Your task to perform on an android device: Go to ESPN.com Image 0: 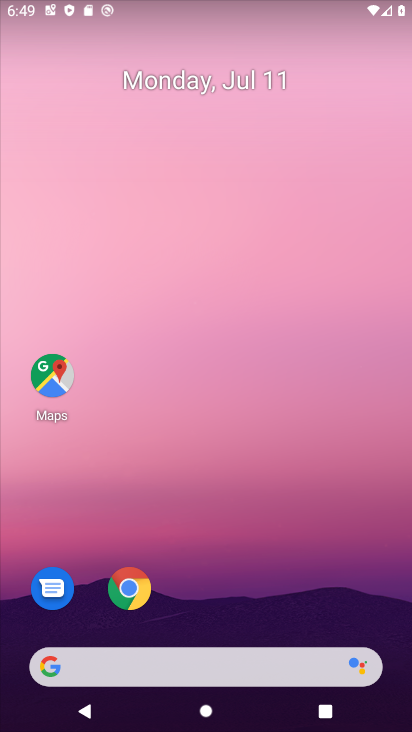
Step 0: drag from (395, 638) to (212, 63)
Your task to perform on an android device: Go to ESPN.com Image 1: 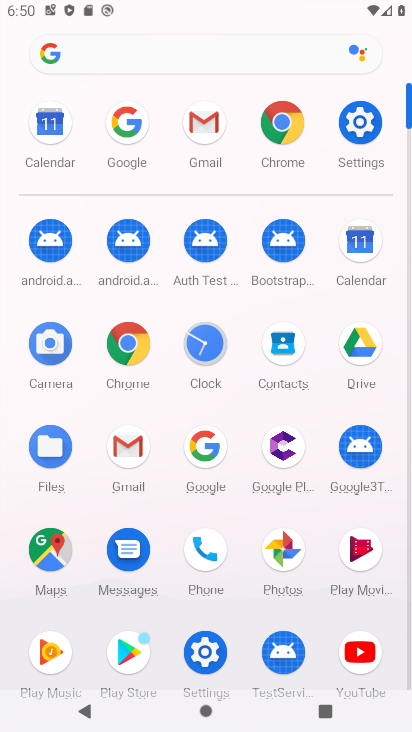
Step 1: click (196, 454)
Your task to perform on an android device: Go to ESPN.com Image 2: 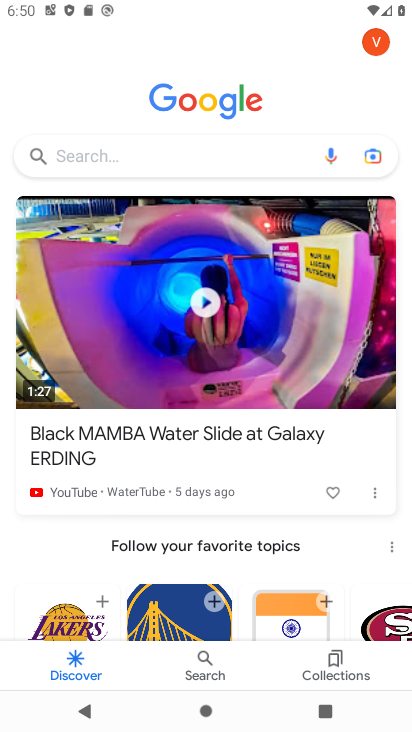
Step 2: click (94, 142)
Your task to perform on an android device: Go to ESPN.com Image 3: 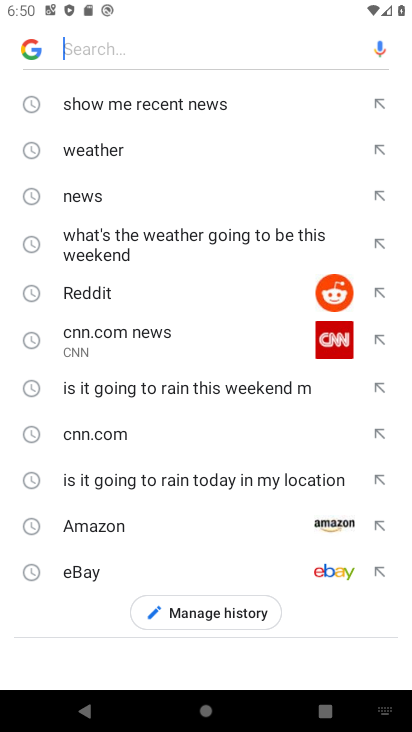
Step 3: type "ESPN.com"
Your task to perform on an android device: Go to ESPN.com Image 4: 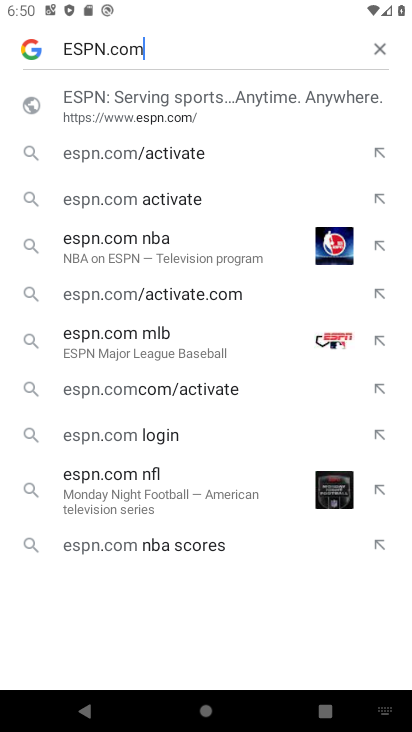
Step 4: click (85, 95)
Your task to perform on an android device: Go to ESPN.com Image 5: 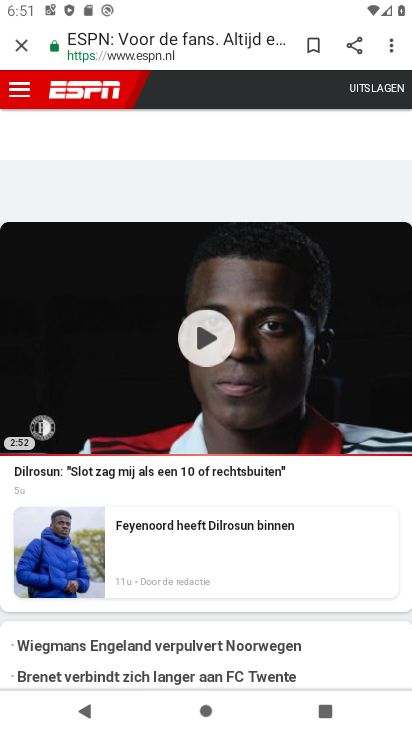
Step 5: task complete